Your task to perform on an android device: See recent photos Image 0: 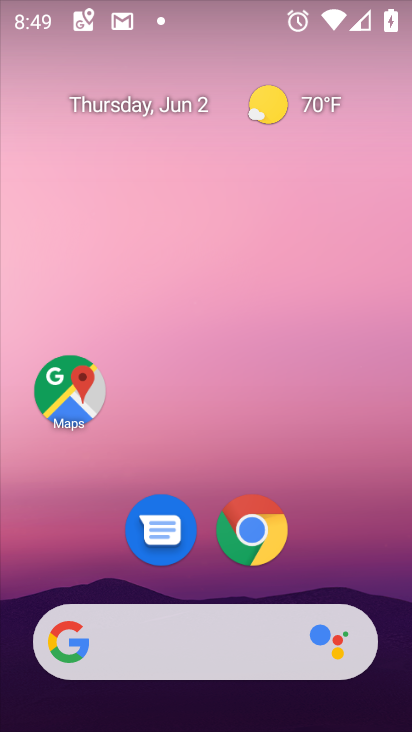
Step 0: drag from (186, 609) to (163, 307)
Your task to perform on an android device: See recent photos Image 1: 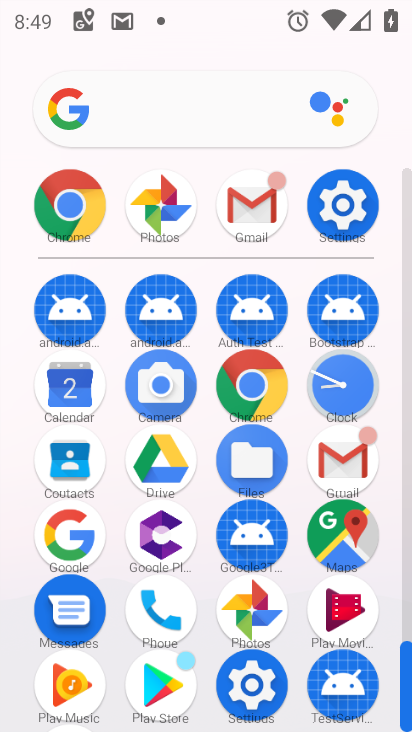
Step 1: click (252, 608)
Your task to perform on an android device: See recent photos Image 2: 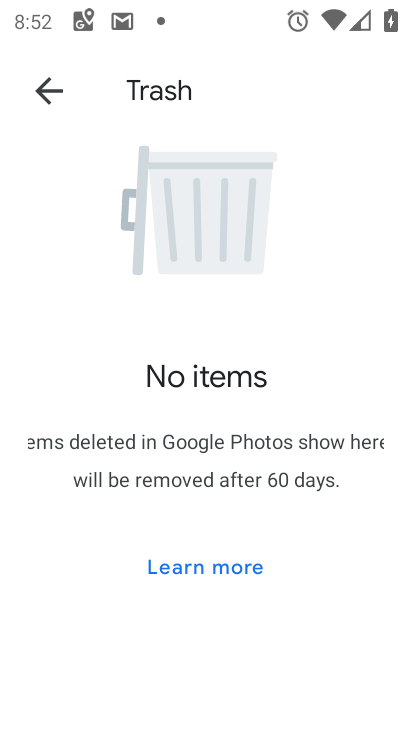
Step 2: click (36, 93)
Your task to perform on an android device: See recent photos Image 3: 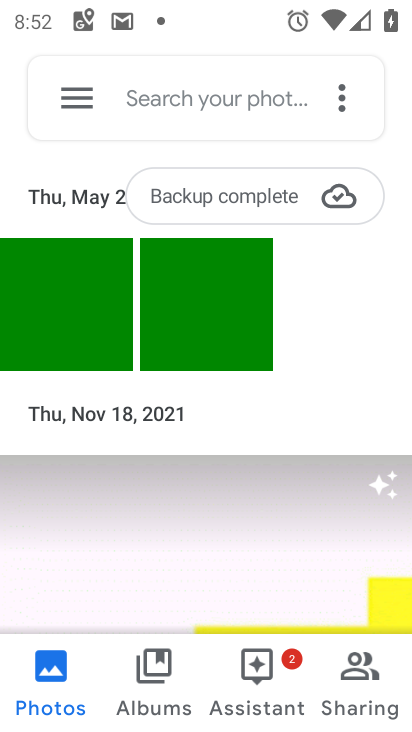
Step 3: click (46, 327)
Your task to perform on an android device: See recent photos Image 4: 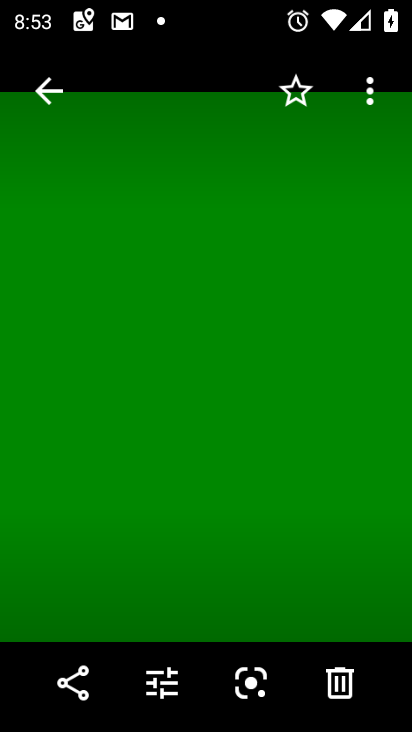
Step 4: task complete